Your task to perform on an android device: set default search engine in the chrome app Image 0: 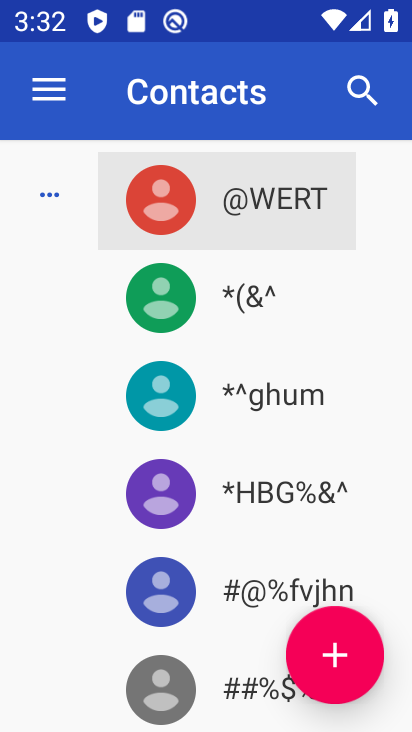
Step 0: press home button
Your task to perform on an android device: set default search engine in the chrome app Image 1: 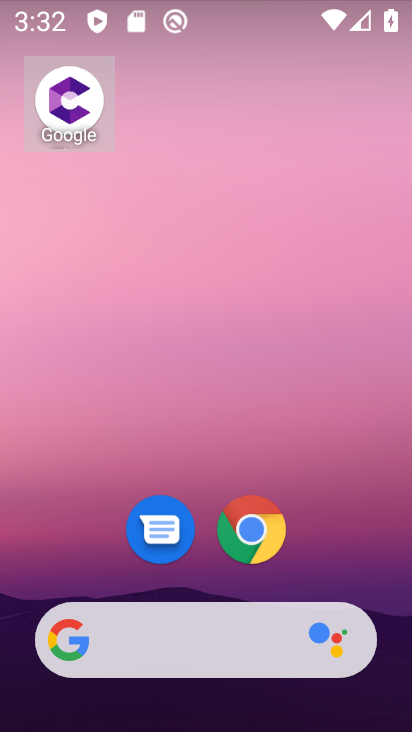
Step 1: click (243, 520)
Your task to perform on an android device: set default search engine in the chrome app Image 2: 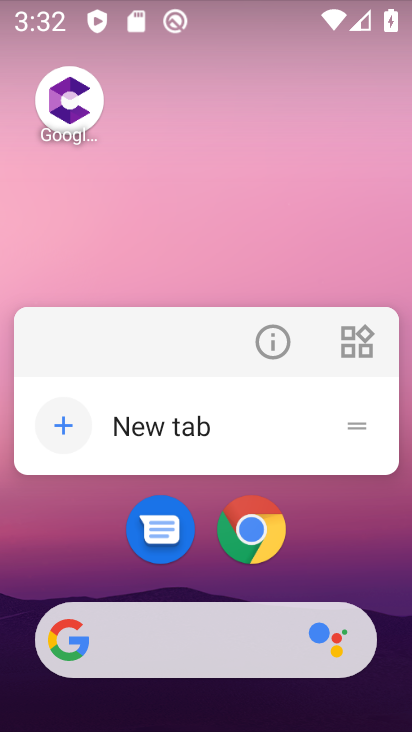
Step 2: click (264, 526)
Your task to perform on an android device: set default search engine in the chrome app Image 3: 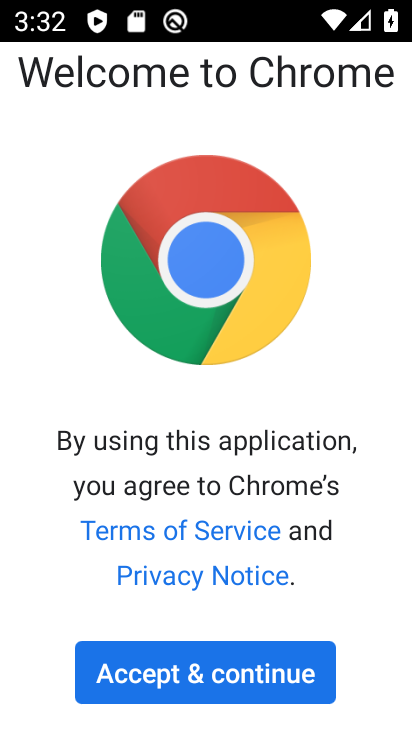
Step 3: click (217, 671)
Your task to perform on an android device: set default search engine in the chrome app Image 4: 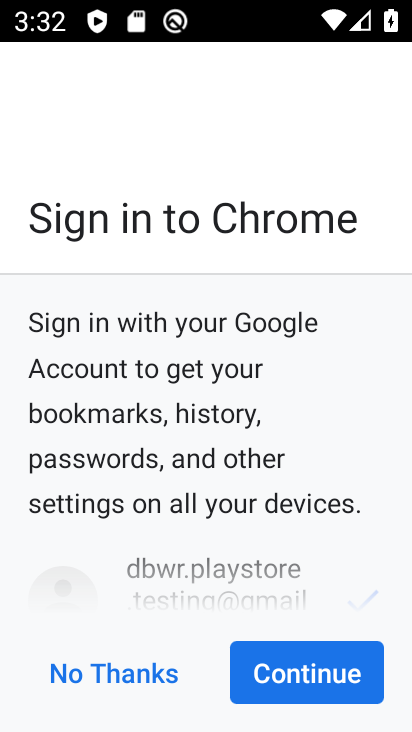
Step 4: click (289, 680)
Your task to perform on an android device: set default search engine in the chrome app Image 5: 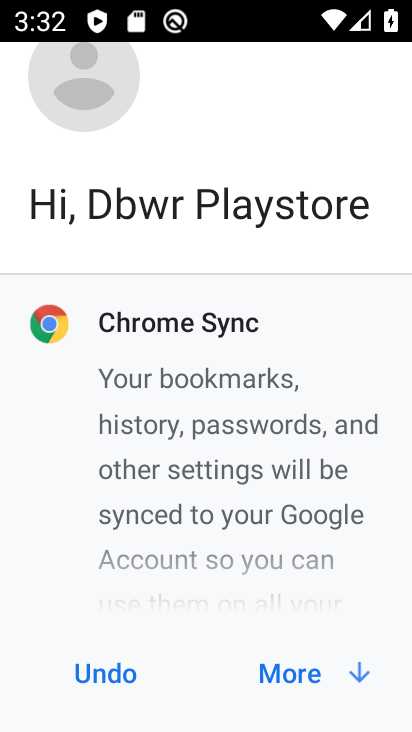
Step 5: click (288, 681)
Your task to perform on an android device: set default search engine in the chrome app Image 6: 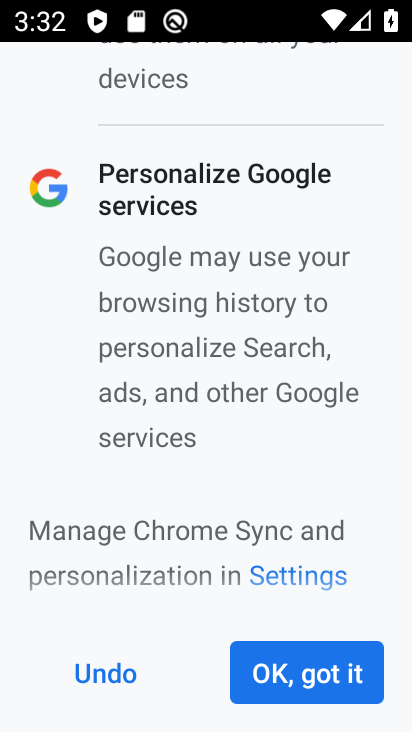
Step 6: click (289, 682)
Your task to perform on an android device: set default search engine in the chrome app Image 7: 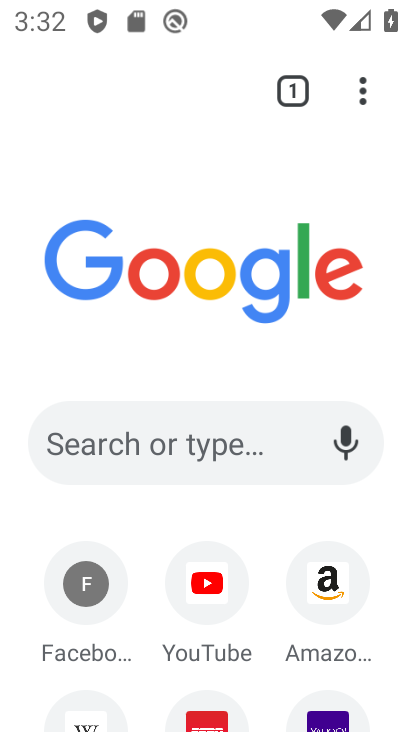
Step 7: click (371, 111)
Your task to perform on an android device: set default search engine in the chrome app Image 8: 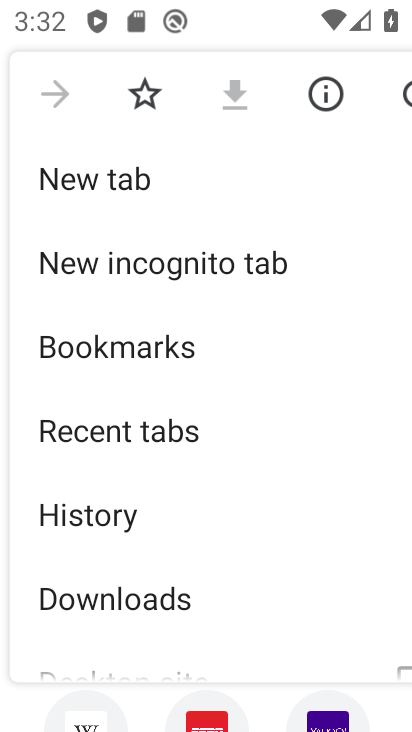
Step 8: drag from (157, 594) to (293, 148)
Your task to perform on an android device: set default search engine in the chrome app Image 9: 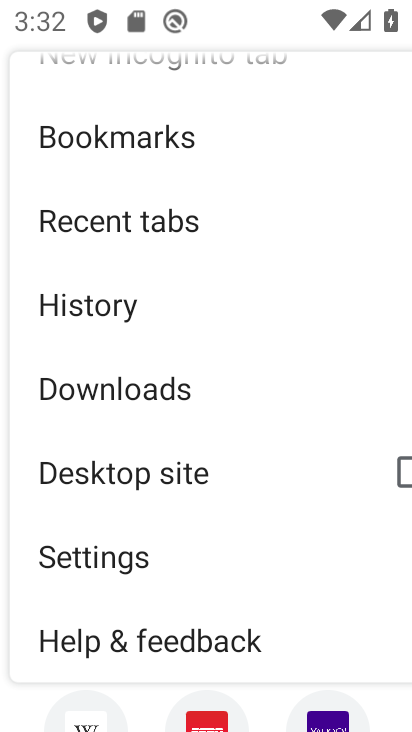
Step 9: click (159, 575)
Your task to perform on an android device: set default search engine in the chrome app Image 10: 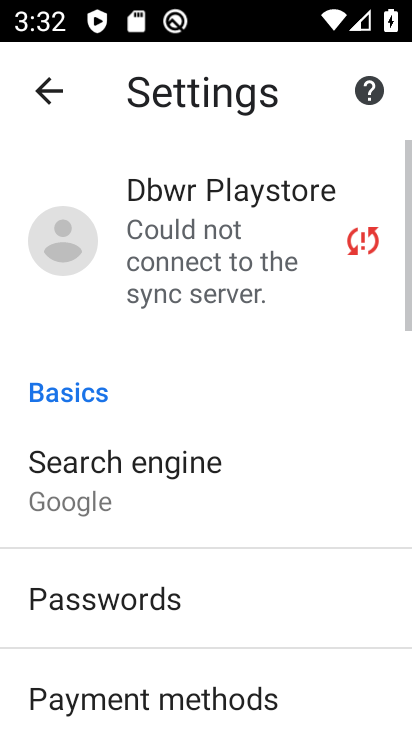
Step 10: drag from (154, 550) to (211, 352)
Your task to perform on an android device: set default search engine in the chrome app Image 11: 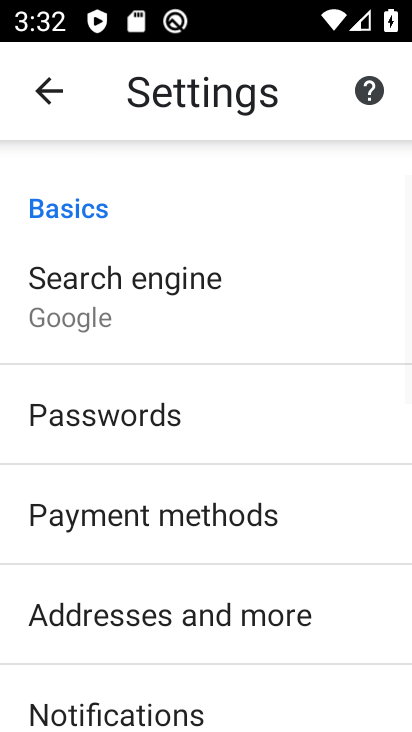
Step 11: click (123, 314)
Your task to perform on an android device: set default search engine in the chrome app Image 12: 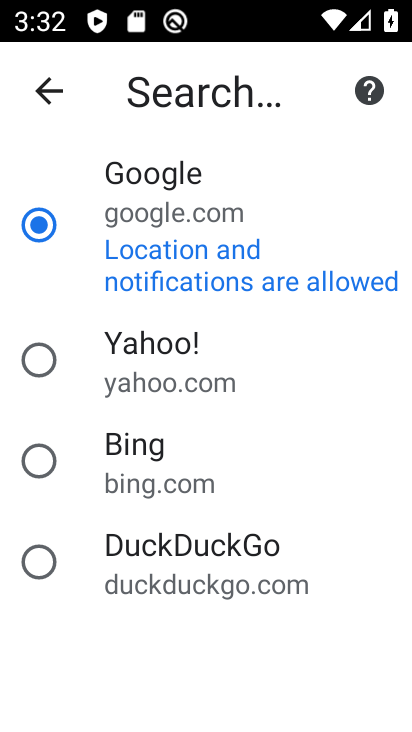
Step 12: click (182, 283)
Your task to perform on an android device: set default search engine in the chrome app Image 13: 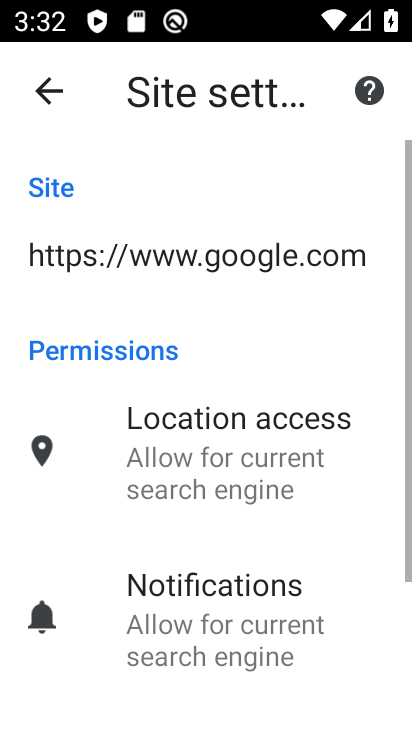
Step 13: drag from (149, 578) to (219, 171)
Your task to perform on an android device: set default search engine in the chrome app Image 14: 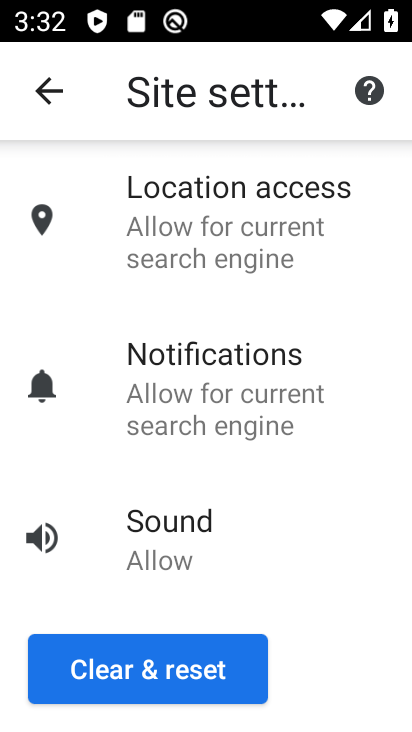
Step 14: click (166, 674)
Your task to perform on an android device: set default search engine in the chrome app Image 15: 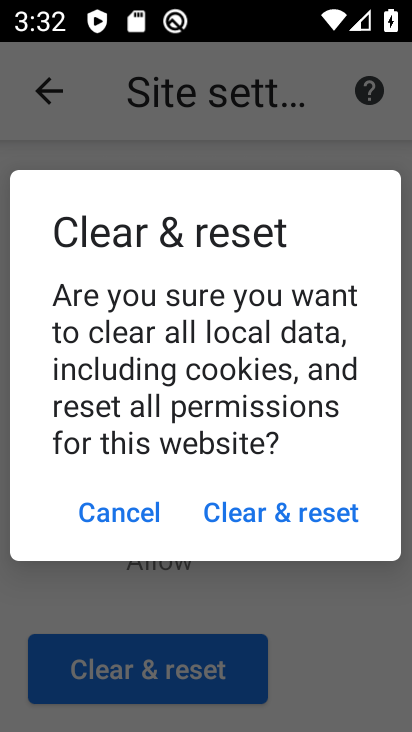
Step 15: click (267, 494)
Your task to perform on an android device: set default search engine in the chrome app Image 16: 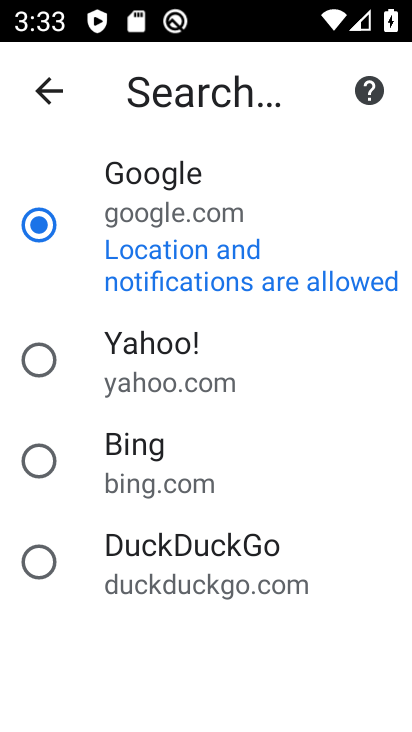
Step 16: task complete